Your task to perform on an android device: View the shopping cart on target. Image 0: 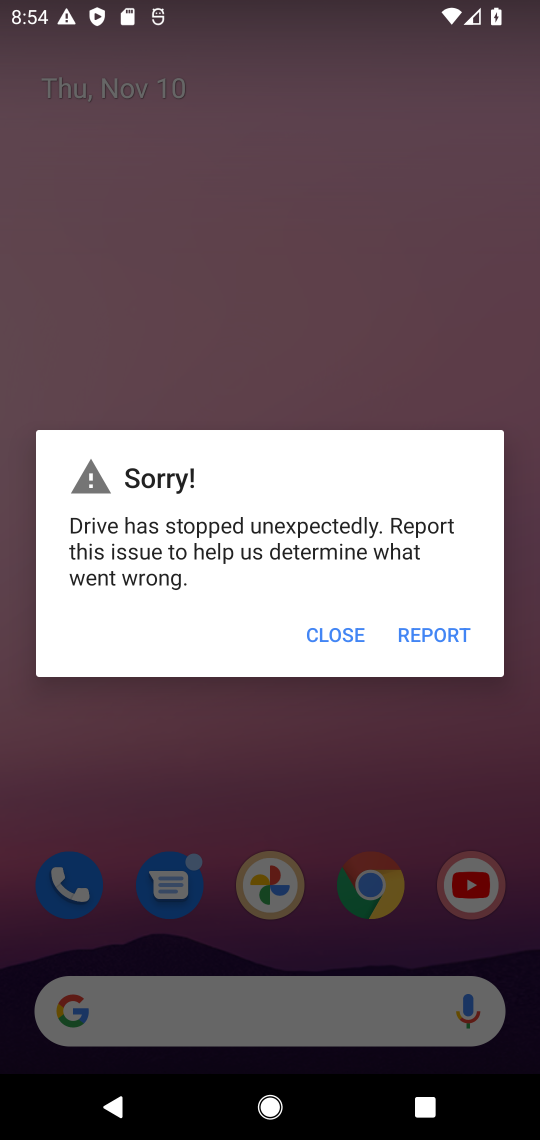
Step 0: click (333, 622)
Your task to perform on an android device: View the shopping cart on target. Image 1: 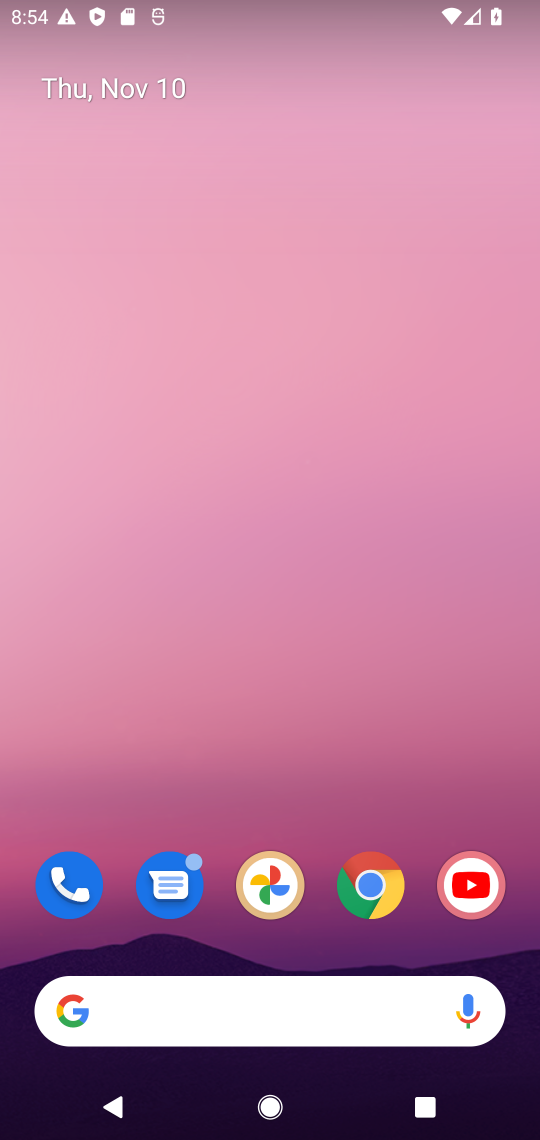
Step 1: click (369, 877)
Your task to perform on an android device: View the shopping cart on target. Image 2: 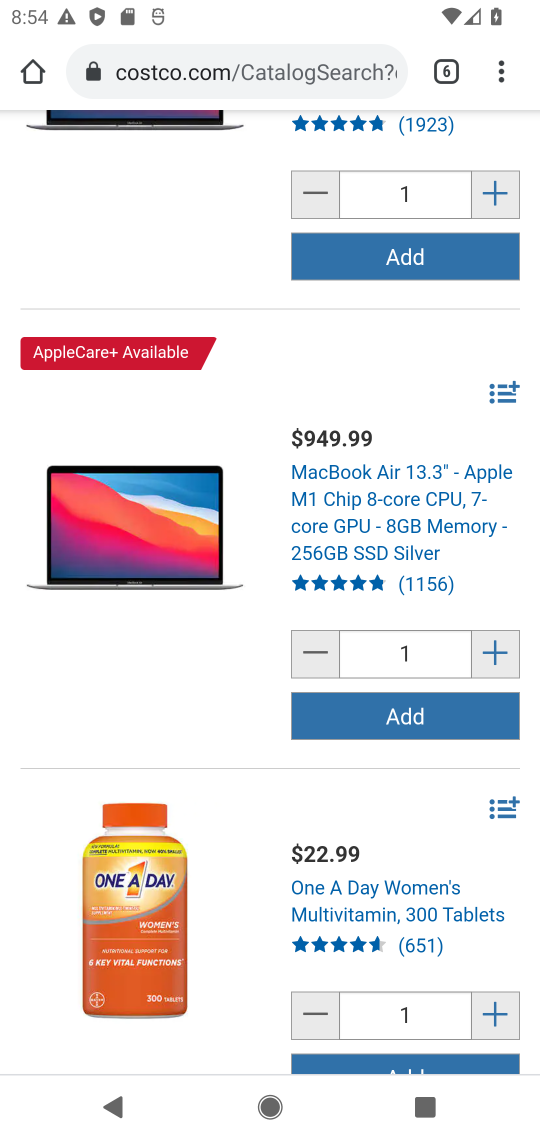
Step 2: click (446, 72)
Your task to perform on an android device: View the shopping cart on target. Image 3: 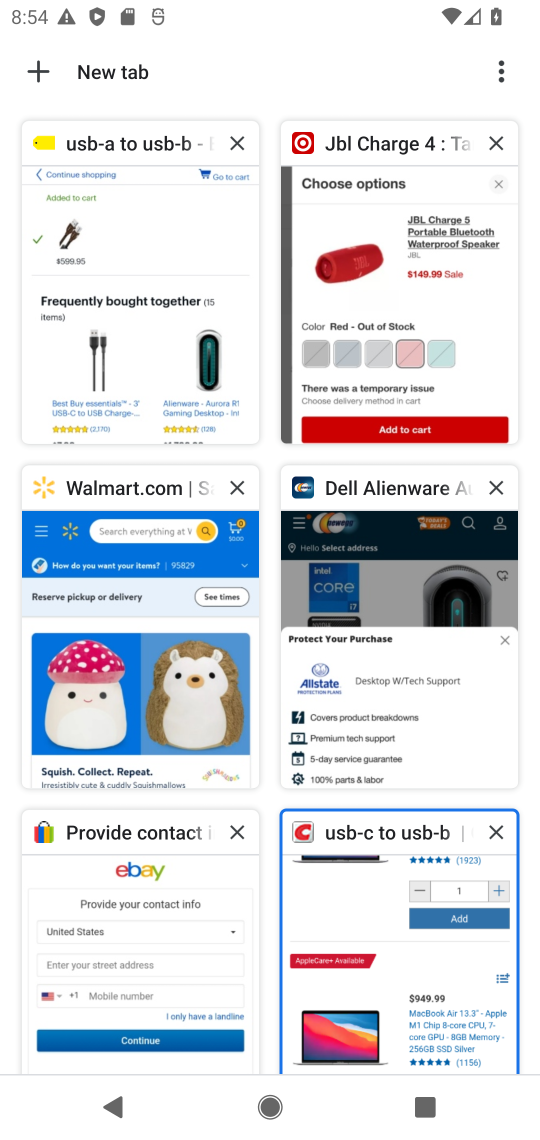
Step 3: click (393, 217)
Your task to perform on an android device: View the shopping cart on target. Image 4: 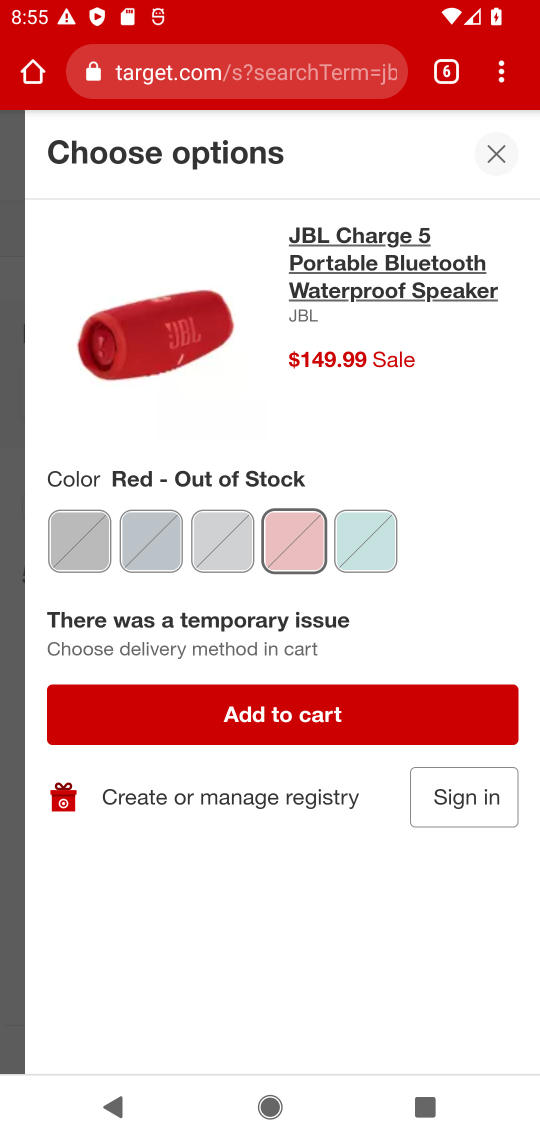
Step 4: click (504, 151)
Your task to perform on an android device: View the shopping cart on target. Image 5: 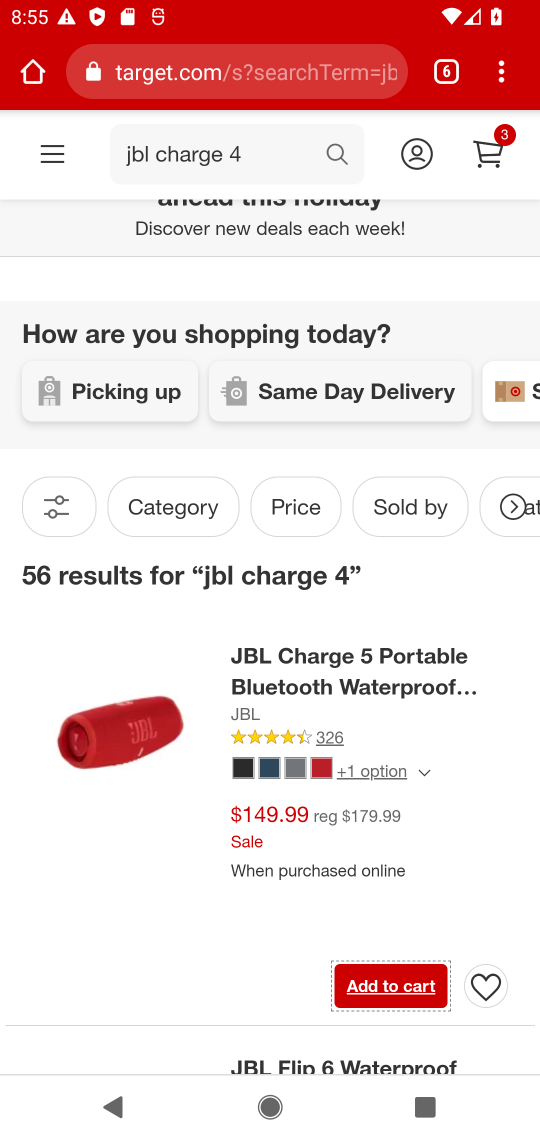
Step 5: click (486, 145)
Your task to perform on an android device: View the shopping cart on target. Image 6: 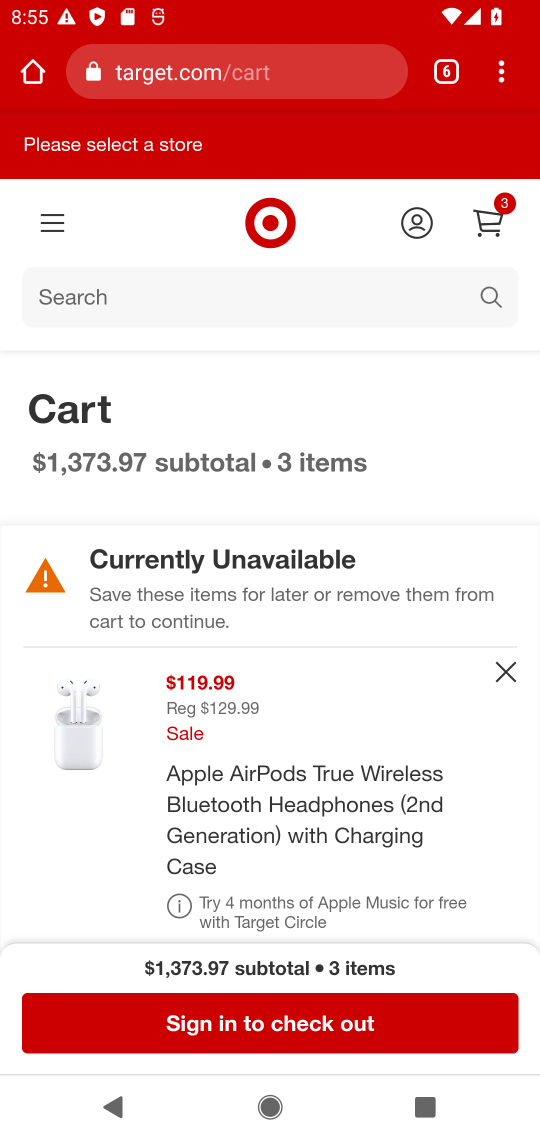
Step 6: task complete